Your task to perform on an android device: Open battery settings Image 0: 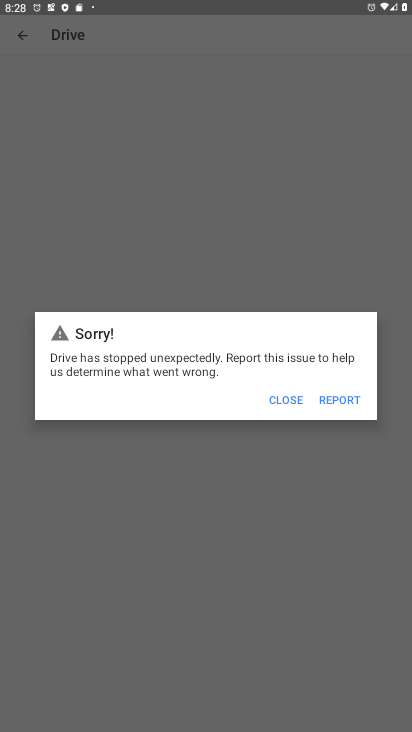
Step 0: press home button
Your task to perform on an android device: Open battery settings Image 1: 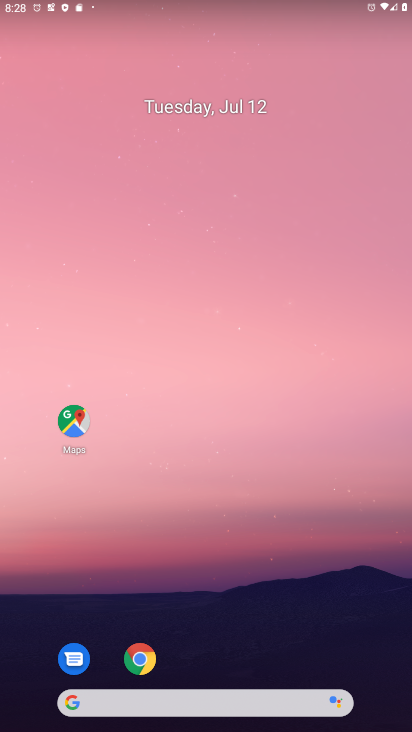
Step 1: drag from (183, 707) to (244, 240)
Your task to perform on an android device: Open battery settings Image 2: 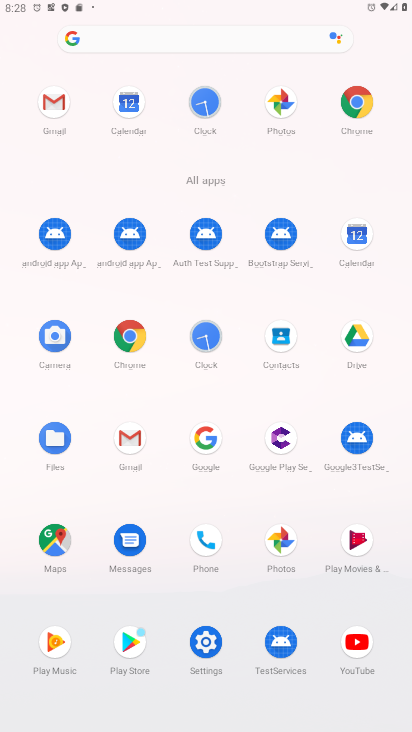
Step 2: click (205, 643)
Your task to perform on an android device: Open battery settings Image 3: 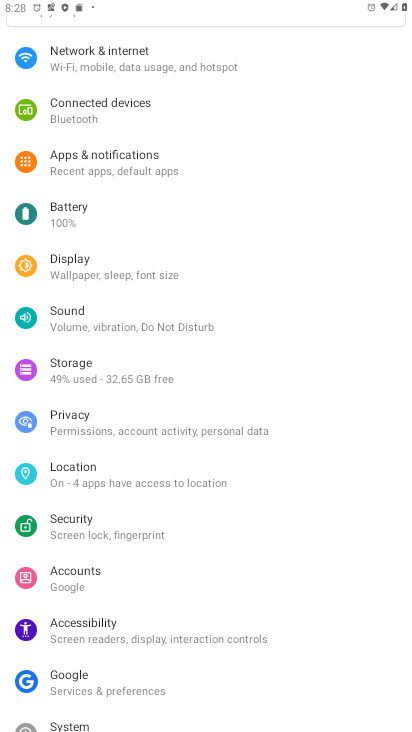
Step 3: click (80, 224)
Your task to perform on an android device: Open battery settings Image 4: 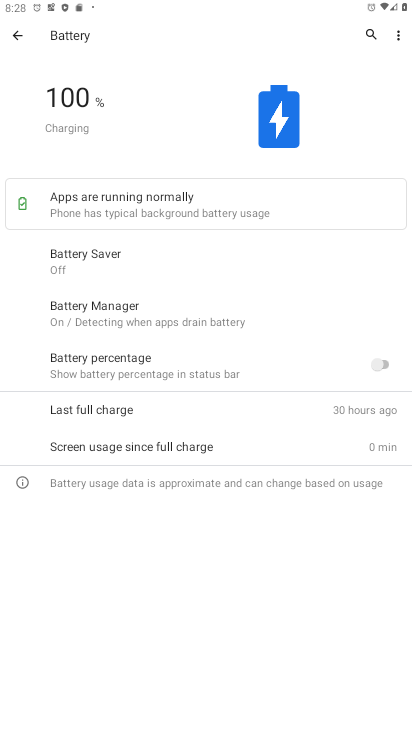
Step 4: task complete